Your task to perform on an android device: Do I have any events today? Image 0: 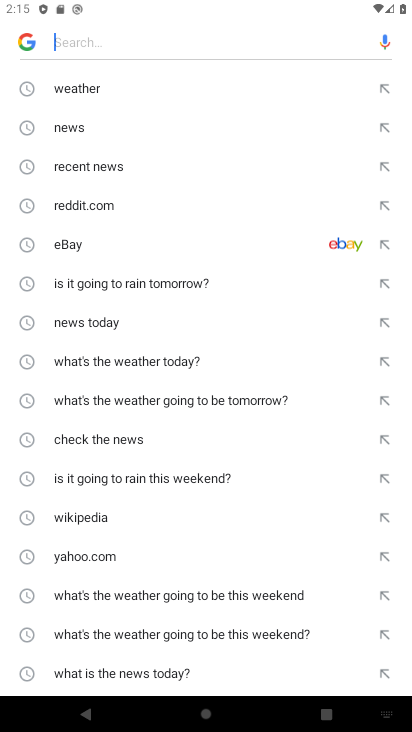
Step 0: press home button
Your task to perform on an android device: Do I have any events today? Image 1: 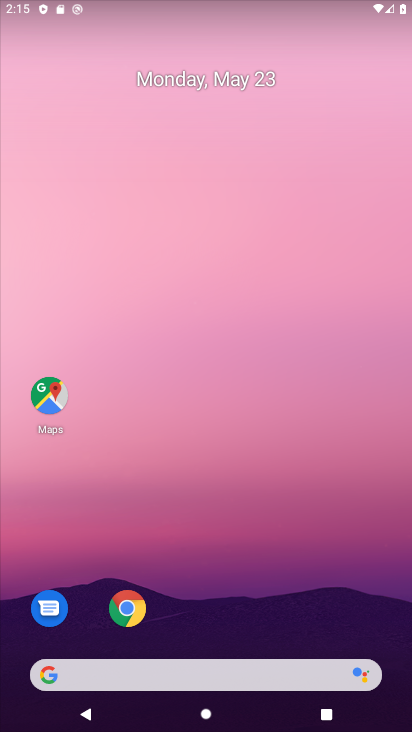
Step 1: drag from (259, 565) to (269, 294)
Your task to perform on an android device: Do I have any events today? Image 2: 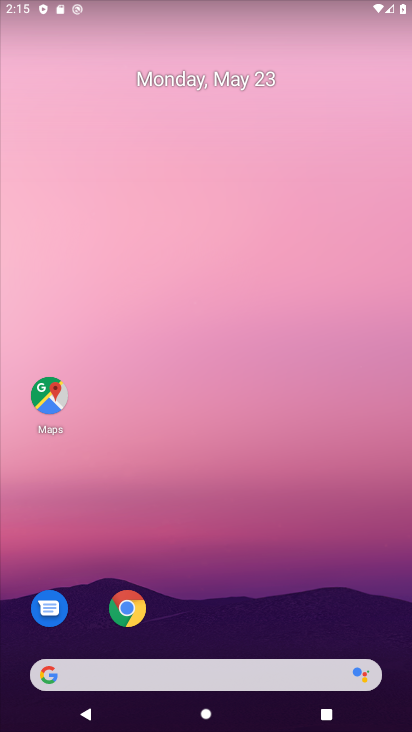
Step 2: drag from (194, 620) to (222, 316)
Your task to perform on an android device: Do I have any events today? Image 3: 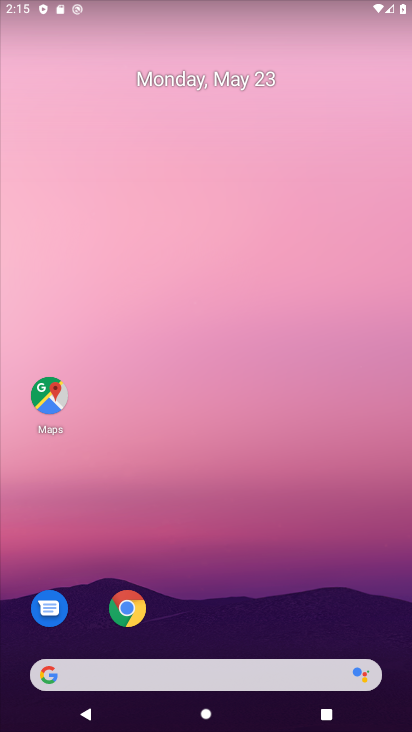
Step 3: drag from (273, 580) to (215, 128)
Your task to perform on an android device: Do I have any events today? Image 4: 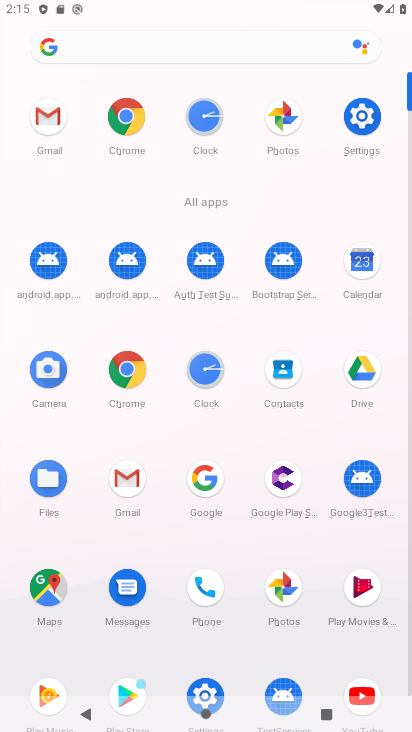
Step 4: click (358, 254)
Your task to perform on an android device: Do I have any events today? Image 5: 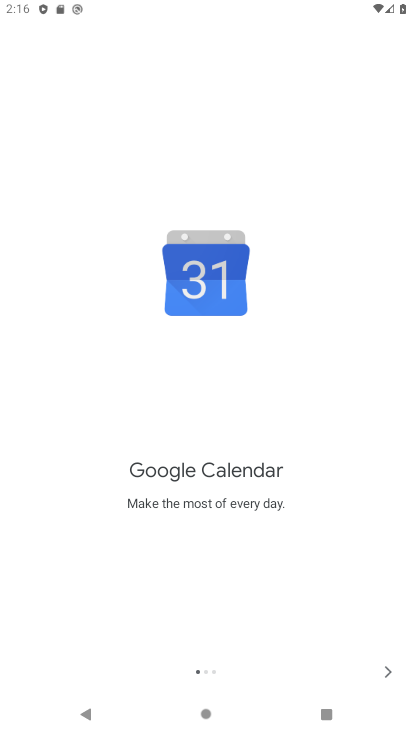
Step 5: click (371, 672)
Your task to perform on an android device: Do I have any events today? Image 6: 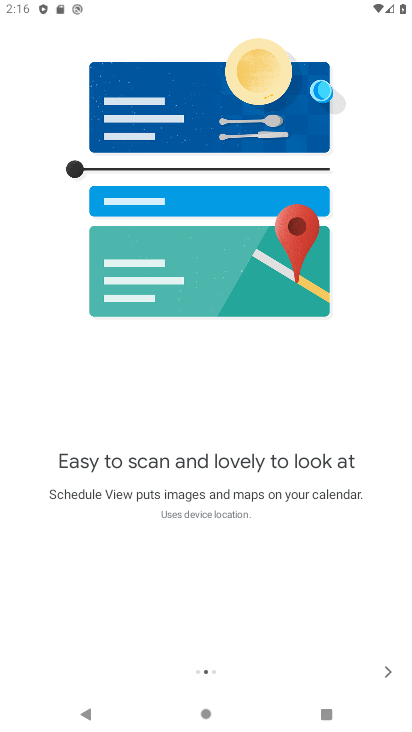
Step 6: click (371, 672)
Your task to perform on an android device: Do I have any events today? Image 7: 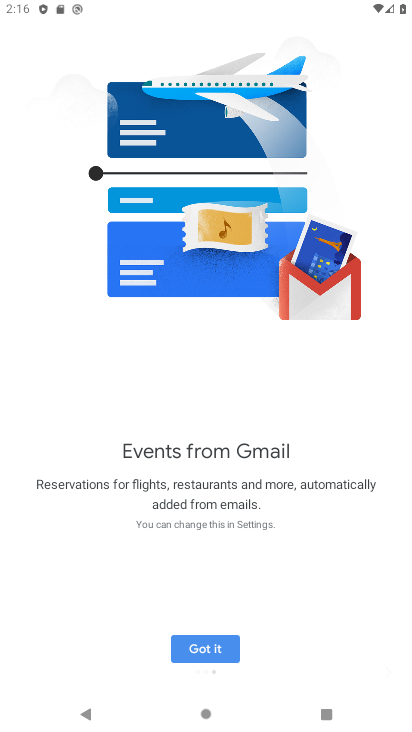
Step 7: click (371, 672)
Your task to perform on an android device: Do I have any events today? Image 8: 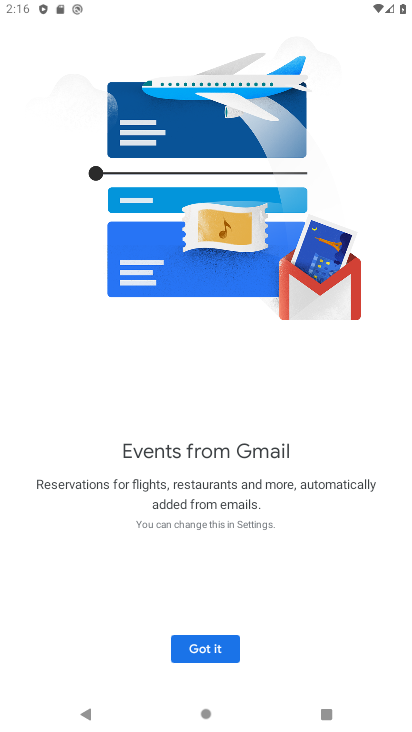
Step 8: click (221, 646)
Your task to perform on an android device: Do I have any events today? Image 9: 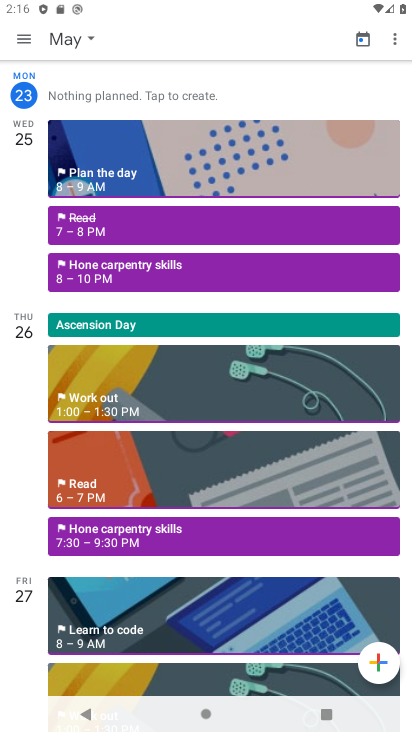
Step 9: task complete